Your task to perform on an android device: change the clock display to analog Image 0: 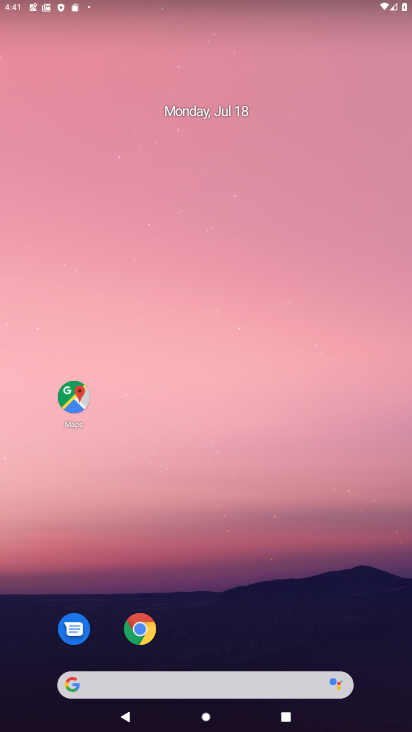
Step 0: drag from (201, 677) to (317, 83)
Your task to perform on an android device: change the clock display to analog Image 1: 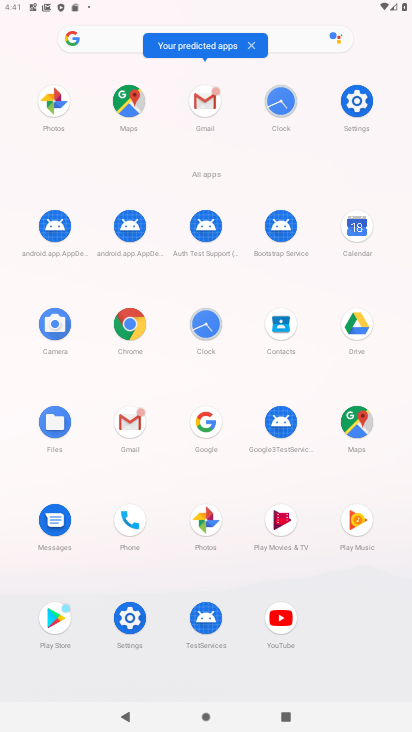
Step 1: click (214, 320)
Your task to perform on an android device: change the clock display to analog Image 2: 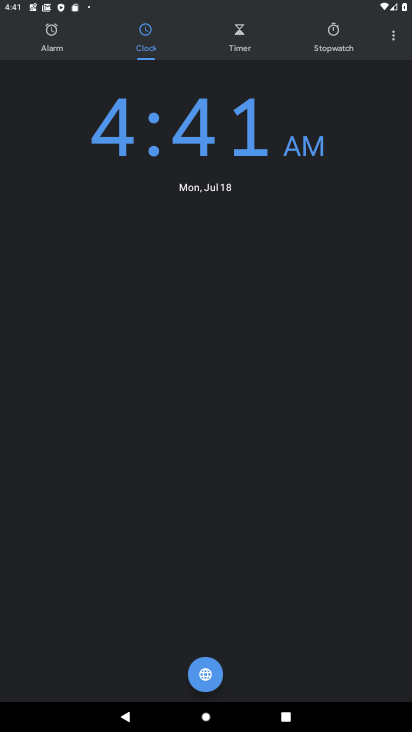
Step 2: click (395, 42)
Your task to perform on an android device: change the clock display to analog Image 3: 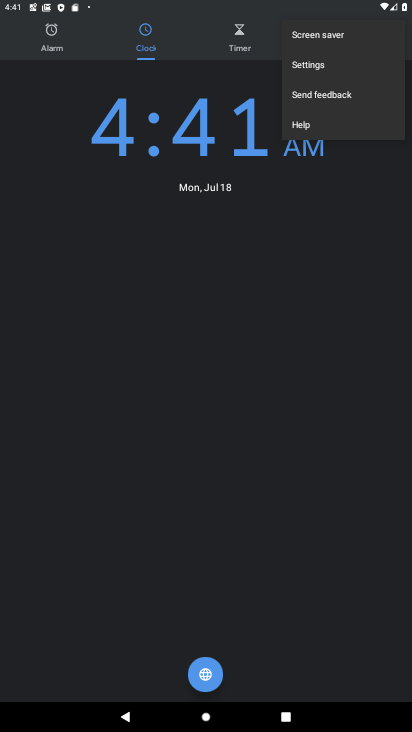
Step 3: click (323, 78)
Your task to perform on an android device: change the clock display to analog Image 4: 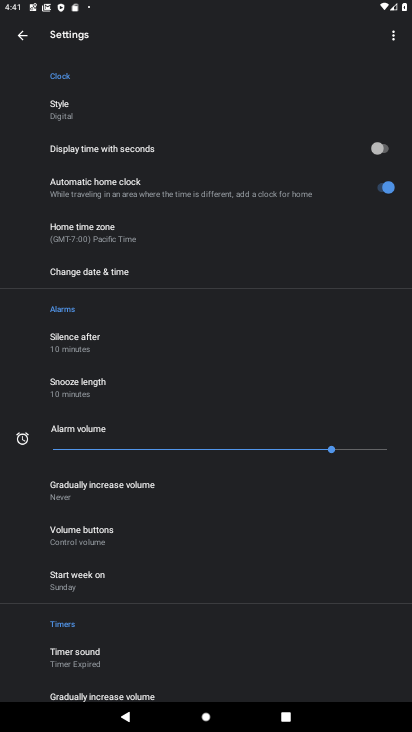
Step 4: click (125, 118)
Your task to perform on an android device: change the clock display to analog Image 5: 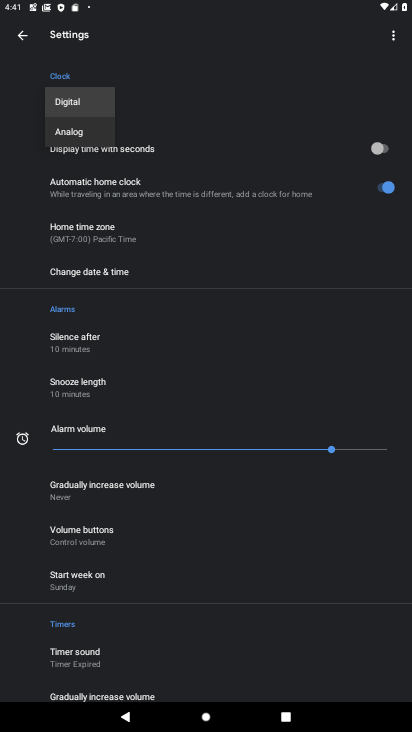
Step 5: click (87, 137)
Your task to perform on an android device: change the clock display to analog Image 6: 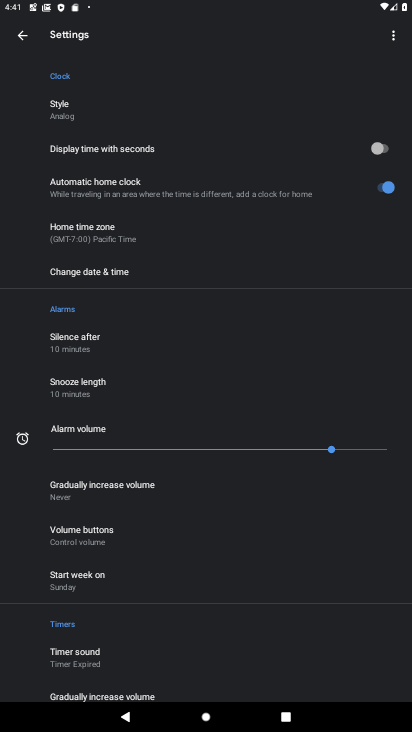
Step 6: task complete